Your task to perform on an android device: Open Amazon Image 0: 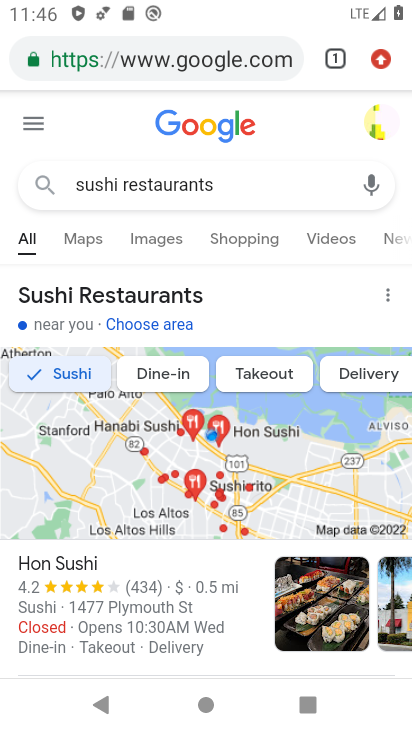
Step 0: press home button
Your task to perform on an android device: Open Amazon Image 1: 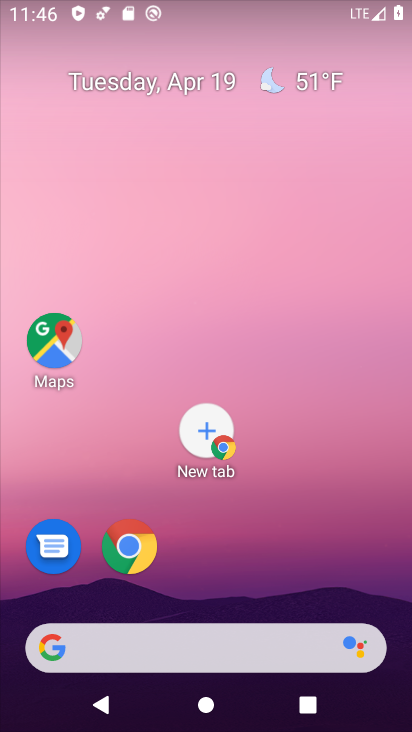
Step 1: click (135, 541)
Your task to perform on an android device: Open Amazon Image 2: 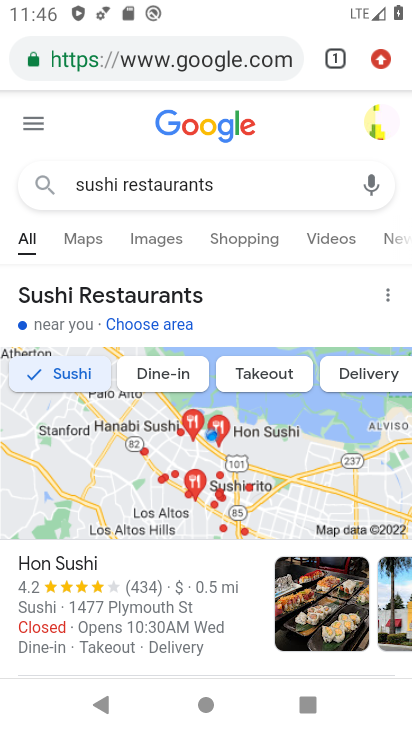
Step 2: click (325, 66)
Your task to perform on an android device: Open Amazon Image 3: 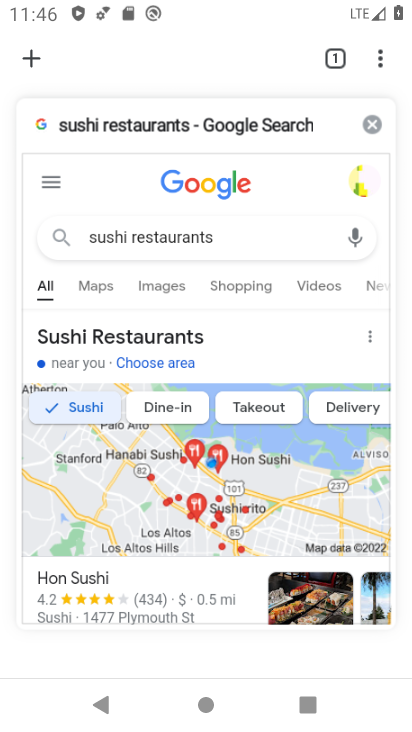
Step 3: click (28, 67)
Your task to perform on an android device: Open Amazon Image 4: 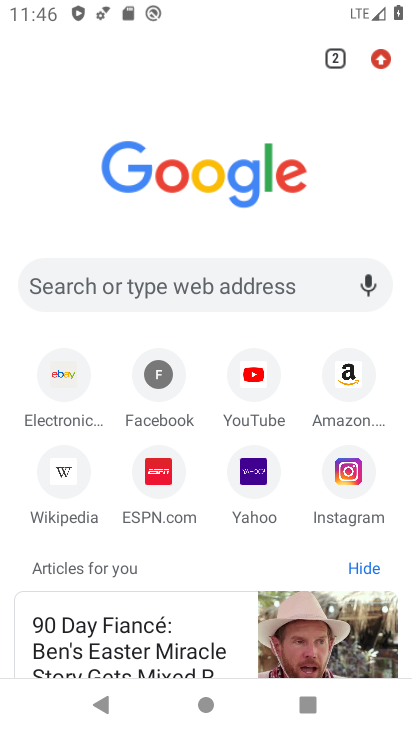
Step 4: click (344, 363)
Your task to perform on an android device: Open Amazon Image 5: 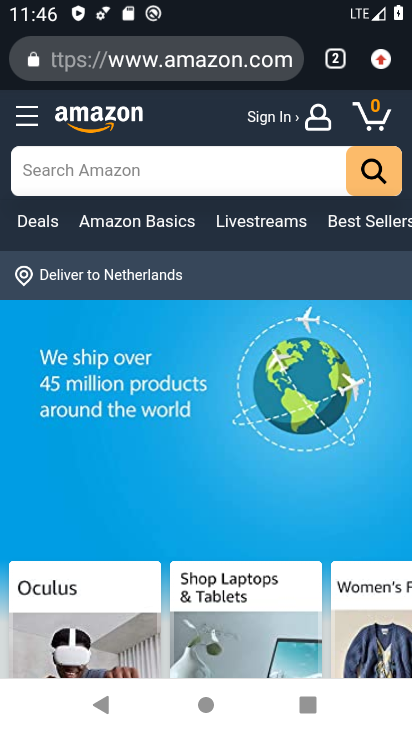
Step 5: task complete